Your task to perform on an android device: turn on notifications settings in the gmail app Image 0: 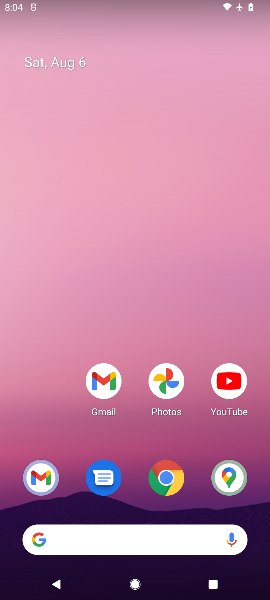
Step 0: press home button
Your task to perform on an android device: turn on notifications settings in the gmail app Image 1: 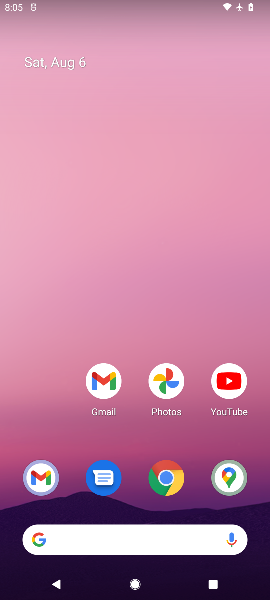
Step 1: press home button
Your task to perform on an android device: turn on notifications settings in the gmail app Image 2: 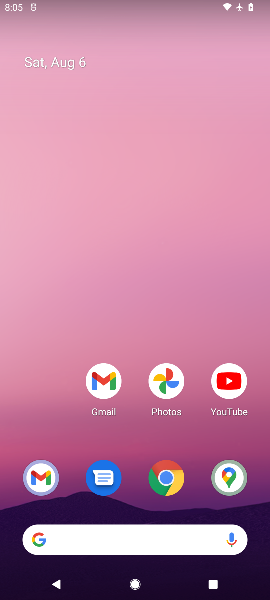
Step 2: drag from (67, 358) to (77, 31)
Your task to perform on an android device: turn on notifications settings in the gmail app Image 3: 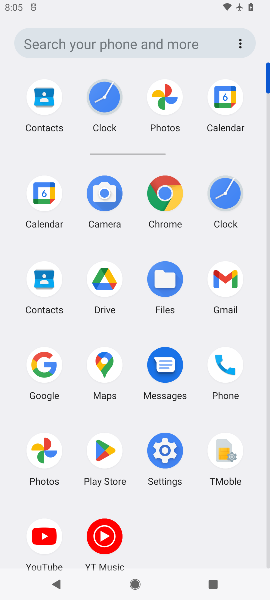
Step 3: click (163, 451)
Your task to perform on an android device: turn on notifications settings in the gmail app Image 4: 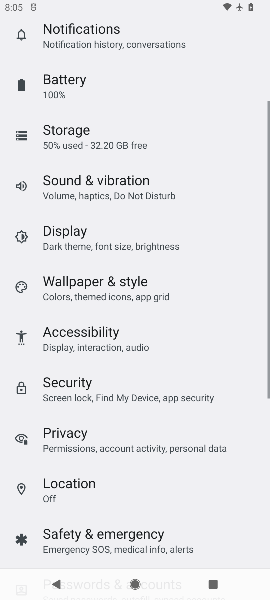
Step 4: press back button
Your task to perform on an android device: turn on notifications settings in the gmail app Image 5: 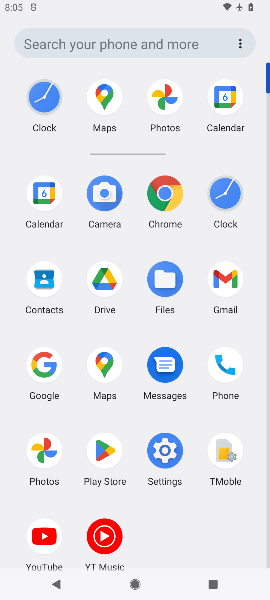
Step 5: click (216, 271)
Your task to perform on an android device: turn on notifications settings in the gmail app Image 6: 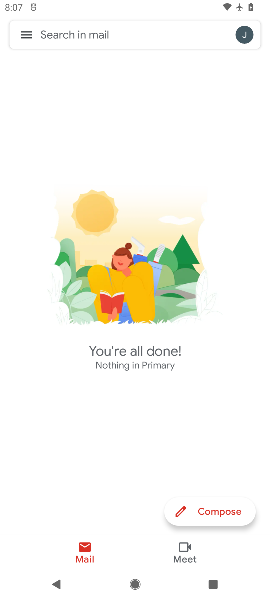
Step 6: click (25, 33)
Your task to perform on an android device: turn on notifications settings in the gmail app Image 7: 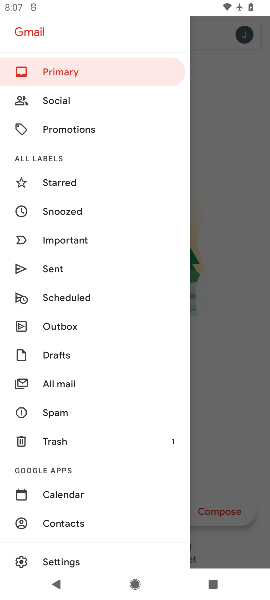
Step 7: click (57, 560)
Your task to perform on an android device: turn on notifications settings in the gmail app Image 8: 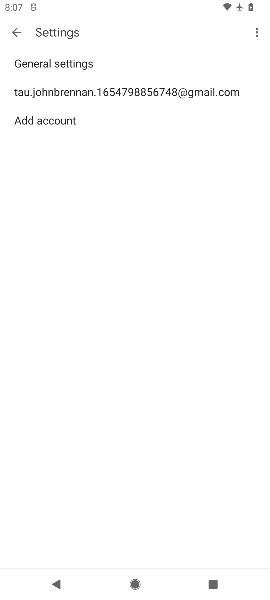
Step 8: click (86, 89)
Your task to perform on an android device: turn on notifications settings in the gmail app Image 9: 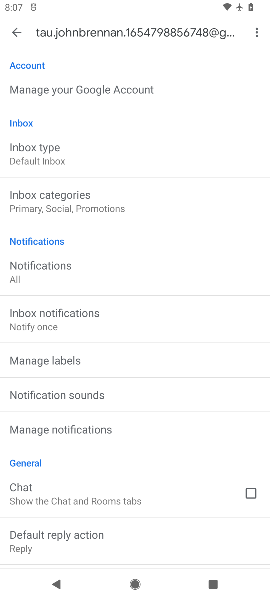
Step 9: click (56, 431)
Your task to perform on an android device: turn on notifications settings in the gmail app Image 10: 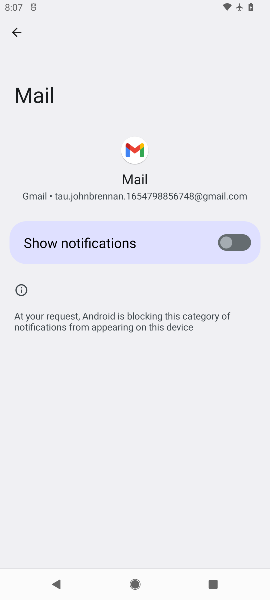
Step 10: click (239, 240)
Your task to perform on an android device: turn on notifications settings in the gmail app Image 11: 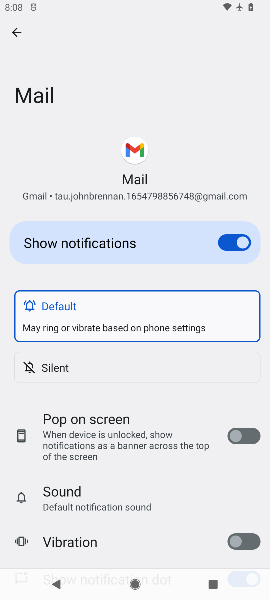
Step 11: task complete